Your task to perform on an android device: turn off improve location accuracy Image 0: 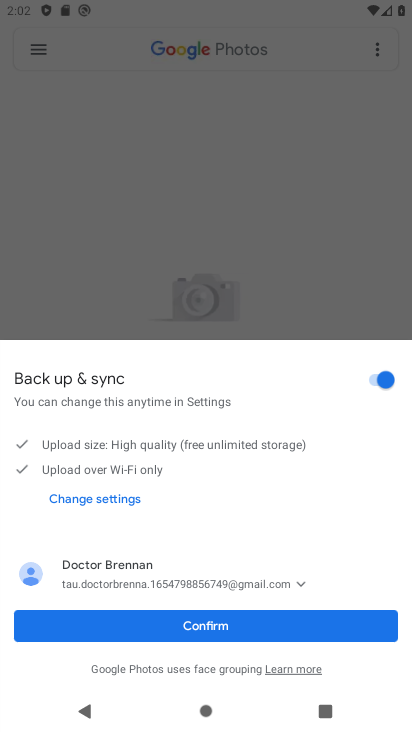
Step 0: task impossible